Your task to perform on an android device: turn off notifications settings in the gmail app Image 0: 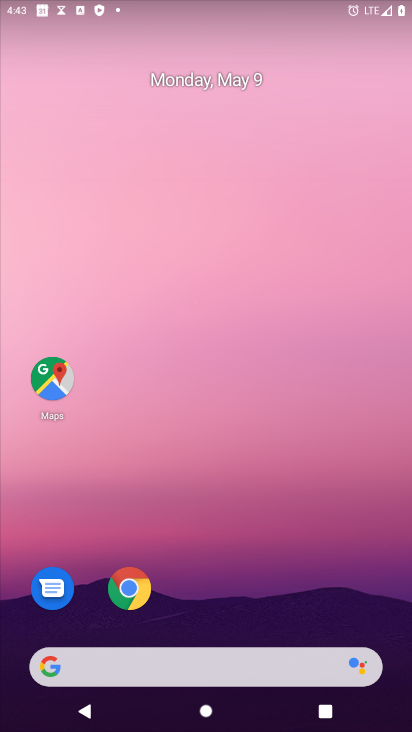
Step 0: drag from (249, 571) to (211, 86)
Your task to perform on an android device: turn off notifications settings in the gmail app Image 1: 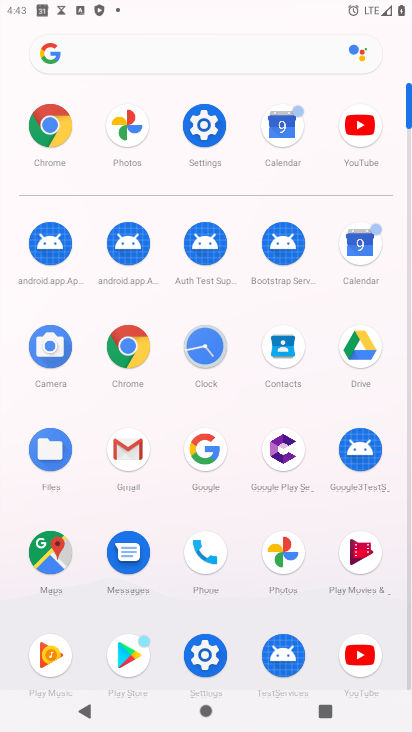
Step 1: click (122, 452)
Your task to perform on an android device: turn off notifications settings in the gmail app Image 2: 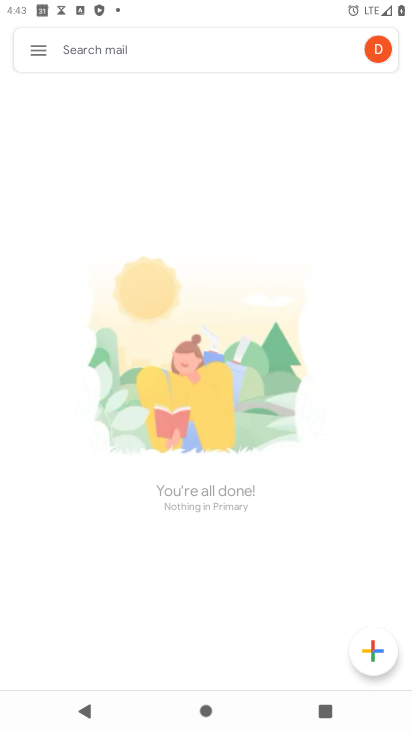
Step 2: click (31, 52)
Your task to perform on an android device: turn off notifications settings in the gmail app Image 3: 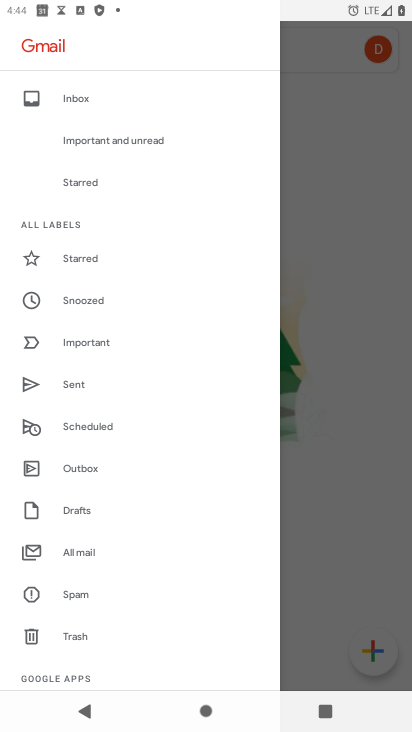
Step 3: drag from (136, 649) to (162, 284)
Your task to perform on an android device: turn off notifications settings in the gmail app Image 4: 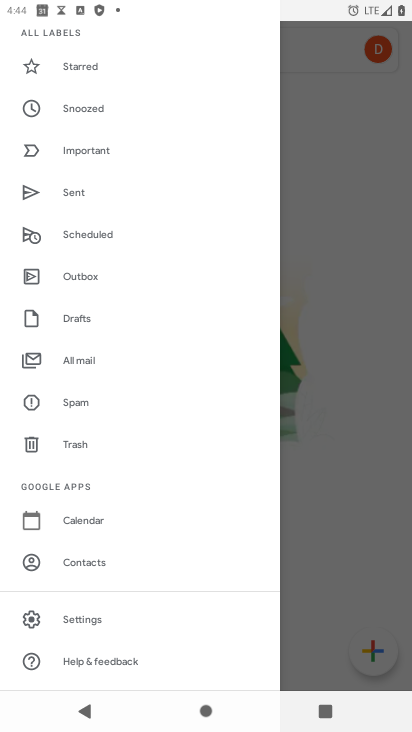
Step 4: click (117, 624)
Your task to perform on an android device: turn off notifications settings in the gmail app Image 5: 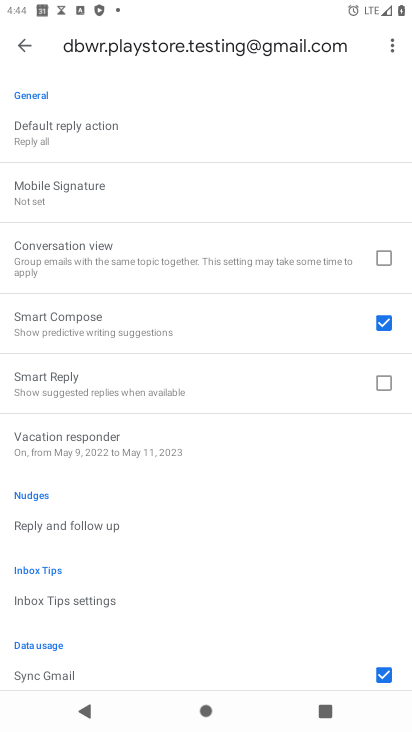
Step 5: drag from (147, 180) to (162, 612)
Your task to perform on an android device: turn off notifications settings in the gmail app Image 6: 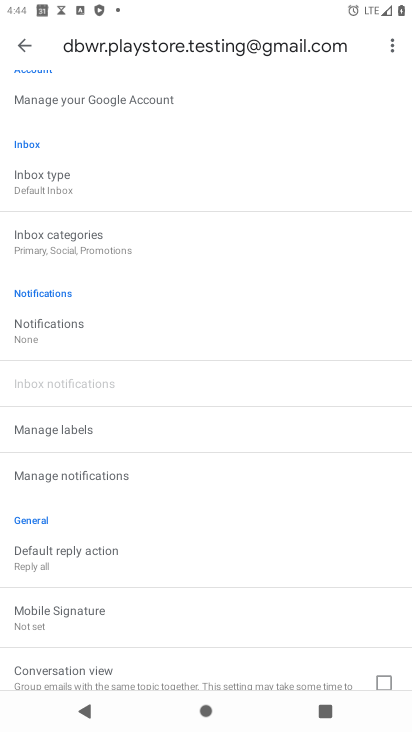
Step 6: click (84, 333)
Your task to perform on an android device: turn off notifications settings in the gmail app Image 7: 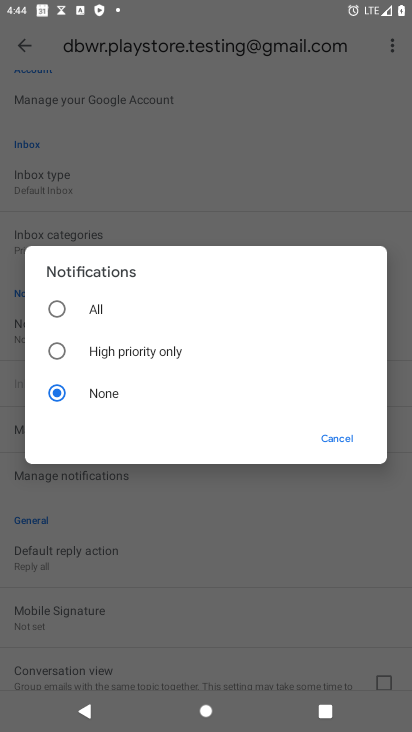
Step 7: task complete